Your task to perform on an android device: Open Chrome and go to the settings page Image 0: 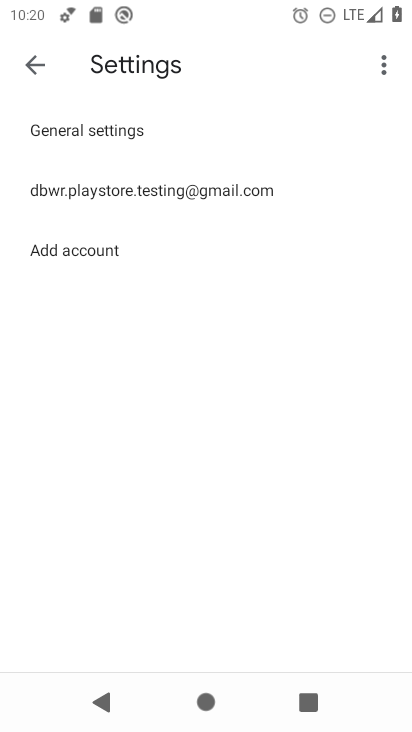
Step 0: press home button
Your task to perform on an android device: Open Chrome and go to the settings page Image 1: 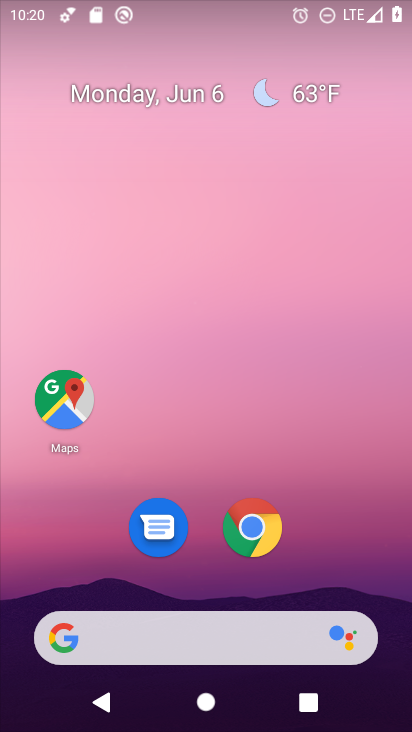
Step 1: drag from (355, 571) to (358, 232)
Your task to perform on an android device: Open Chrome and go to the settings page Image 2: 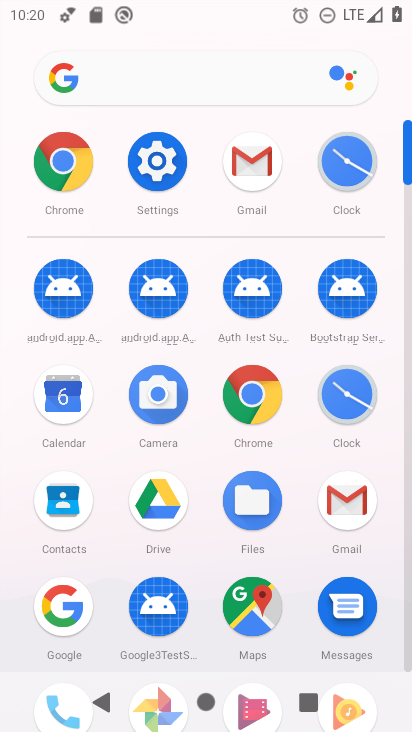
Step 2: click (260, 403)
Your task to perform on an android device: Open Chrome and go to the settings page Image 3: 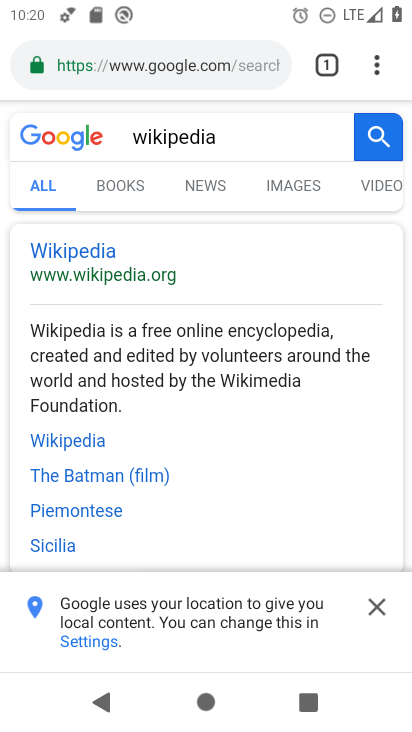
Step 3: click (380, 70)
Your task to perform on an android device: Open Chrome and go to the settings page Image 4: 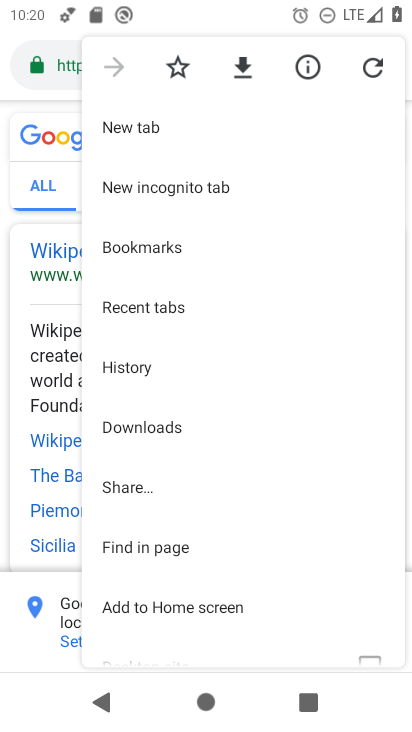
Step 4: drag from (281, 402) to (284, 279)
Your task to perform on an android device: Open Chrome and go to the settings page Image 5: 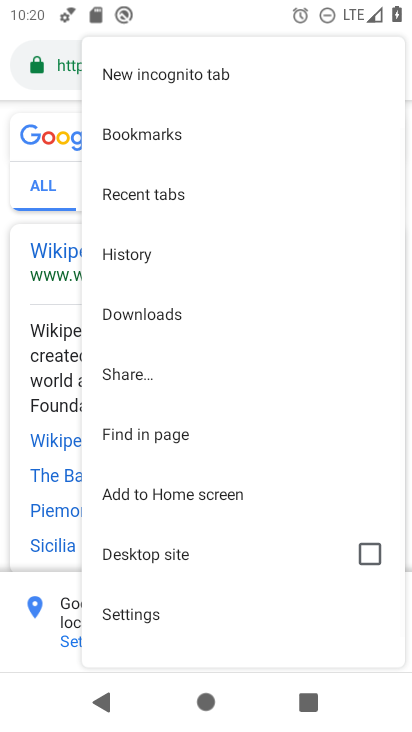
Step 5: drag from (297, 428) to (281, 301)
Your task to perform on an android device: Open Chrome and go to the settings page Image 6: 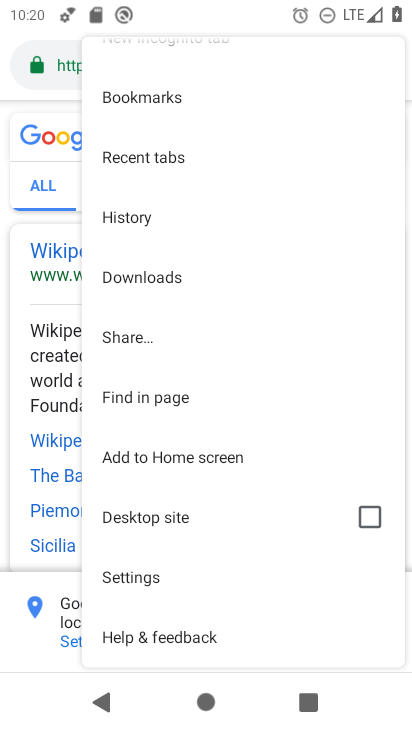
Step 6: click (146, 590)
Your task to perform on an android device: Open Chrome and go to the settings page Image 7: 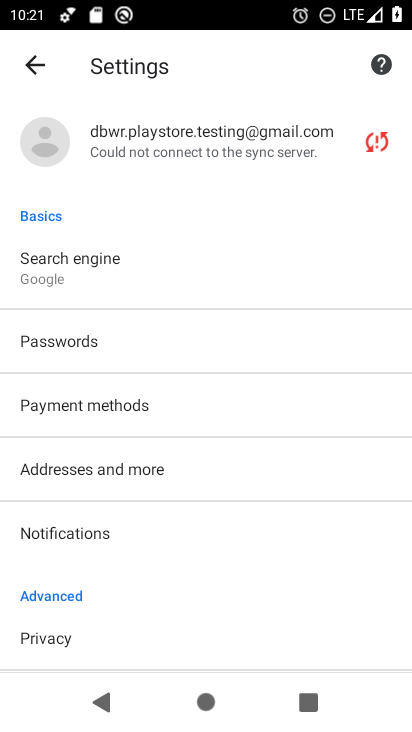
Step 7: task complete